Your task to perform on an android device: open app "VLC for Android" (install if not already installed) Image 0: 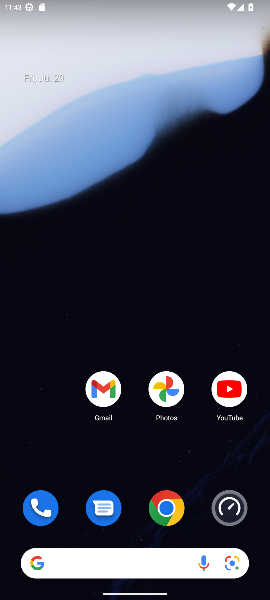
Step 0: drag from (106, 530) to (131, 94)
Your task to perform on an android device: open app "VLC for Android" (install if not already installed) Image 1: 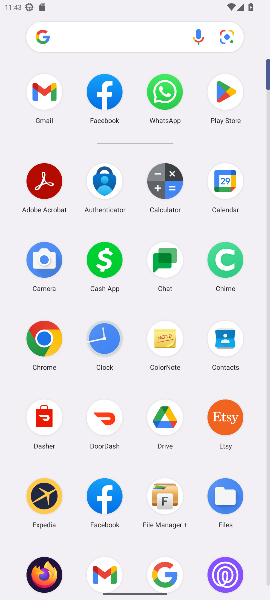
Step 1: click (231, 86)
Your task to perform on an android device: open app "VLC for Android" (install if not already installed) Image 2: 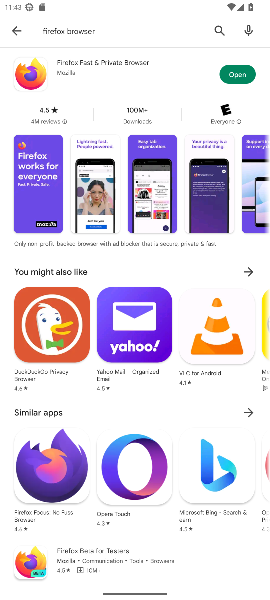
Step 2: click (217, 27)
Your task to perform on an android device: open app "VLC for Android" (install if not already installed) Image 3: 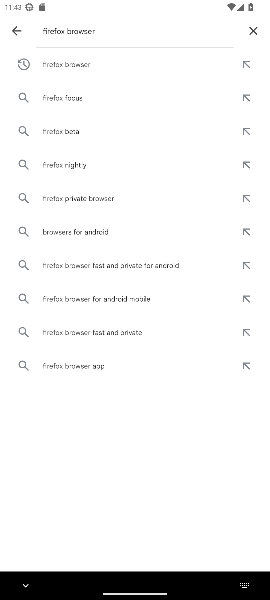
Step 3: click (253, 30)
Your task to perform on an android device: open app "VLC for Android" (install if not already installed) Image 4: 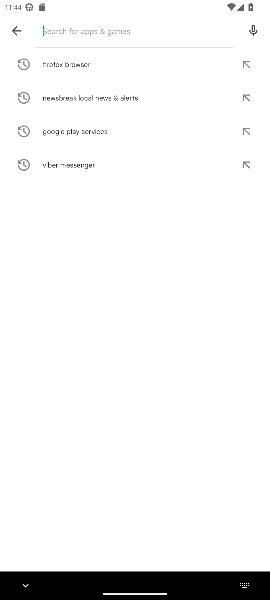
Step 4: type "vlc for android"
Your task to perform on an android device: open app "VLC for Android" (install if not already installed) Image 5: 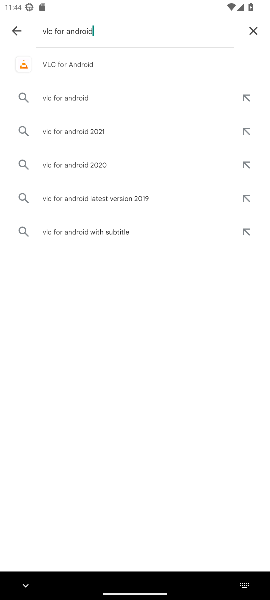
Step 5: click (55, 61)
Your task to perform on an android device: open app "VLC for Android" (install if not already installed) Image 6: 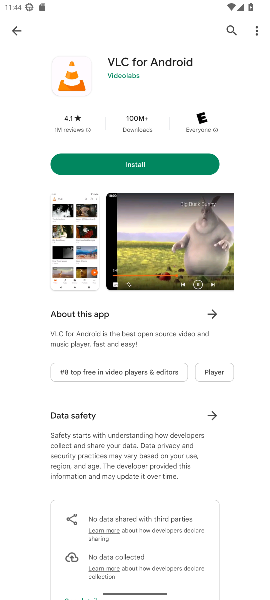
Step 6: click (166, 171)
Your task to perform on an android device: open app "VLC for Android" (install if not already installed) Image 7: 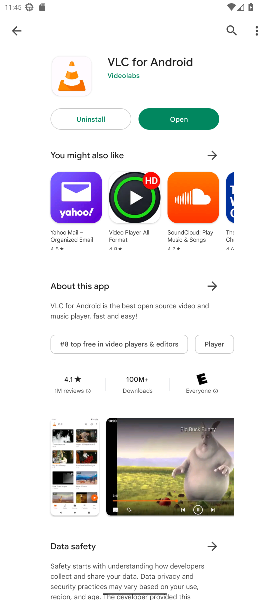
Step 7: click (192, 114)
Your task to perform on an android device: open app "VLC for Android" (install if not already installed) Image 8: 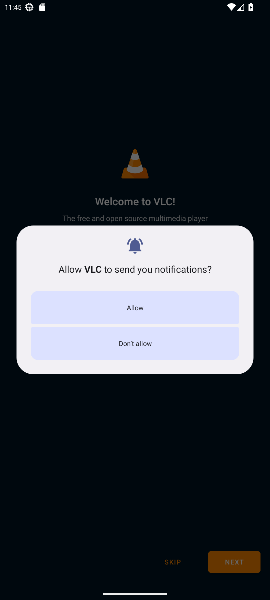
Step 8: task complete